Your task to perform on an android device: Go to Google Image 0: 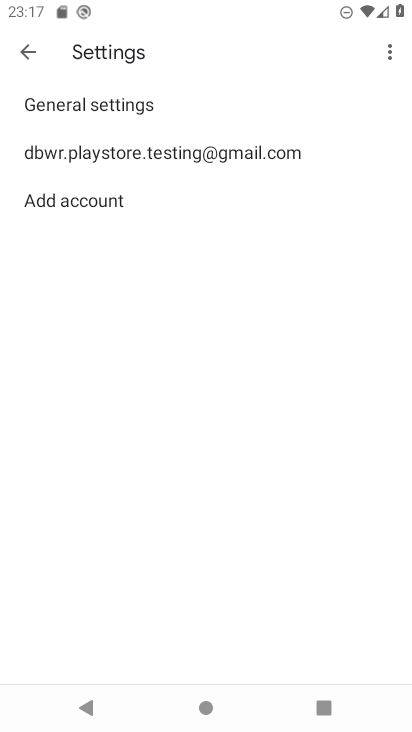
Step 0: press home button
Your task to perform on an android device: Go to Google Image 1: 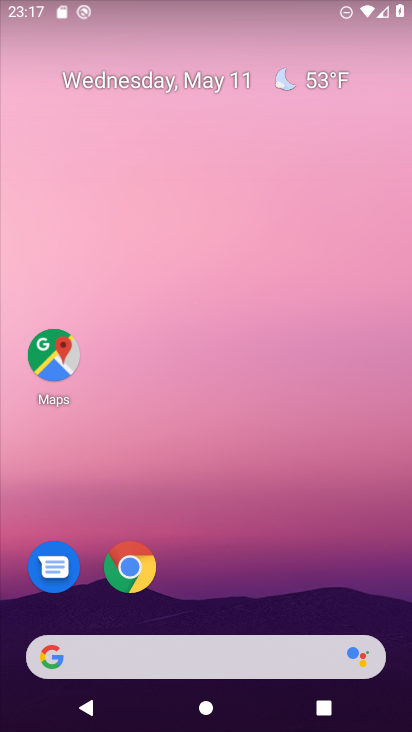
Step 1: drag from (229, 715) to (360, 14)
Your task to perform on an android device: Go to Google Image 2: 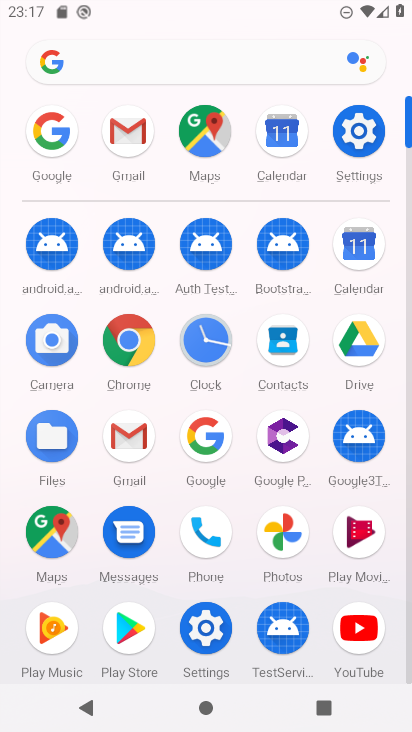
Step 2: click (209, 448)
Your task to perform on an android device: Go to Google Image 3: 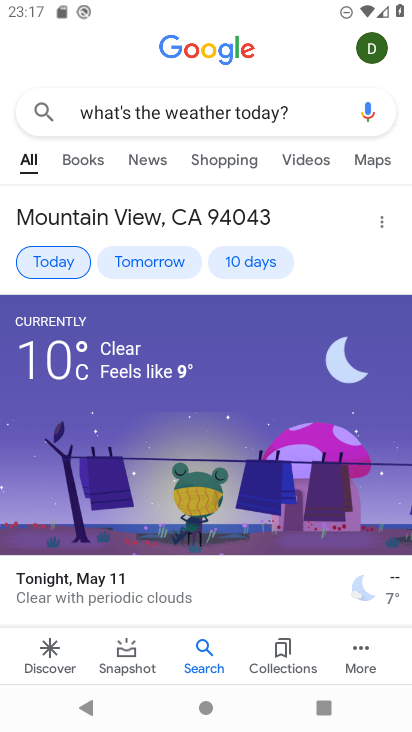
Step 3: task complete